Your task to perform on an android device: change the clock display to analog Image 0: 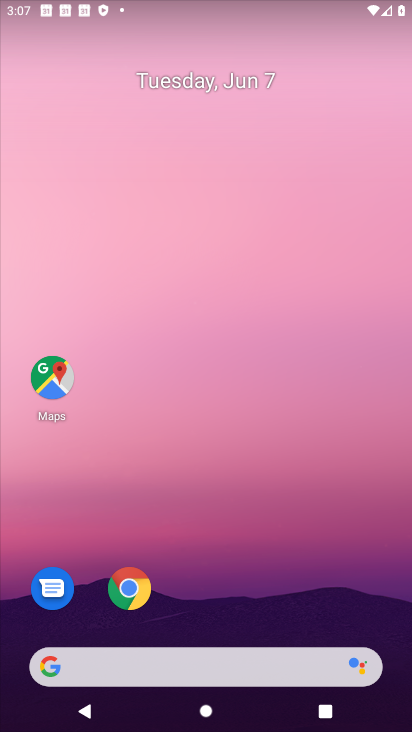
Step 0: drag from (319, 575) to (280, 200)
Your task to perform on an android device: change the clock display to analog Image 1: 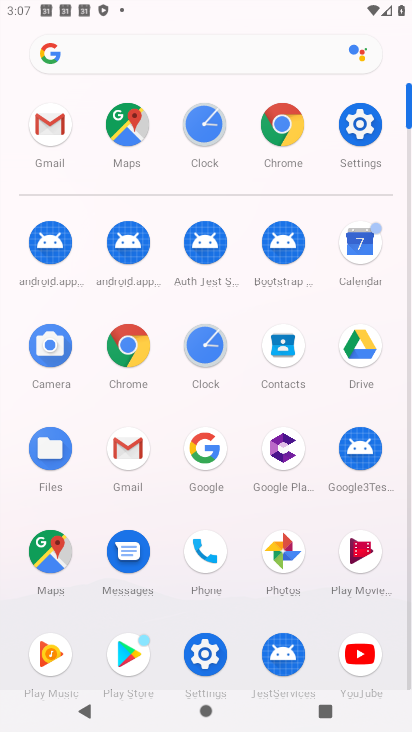
Step 1: click (201, 117)
Your task to perform on an android device: change the clock display to analog Image 2: 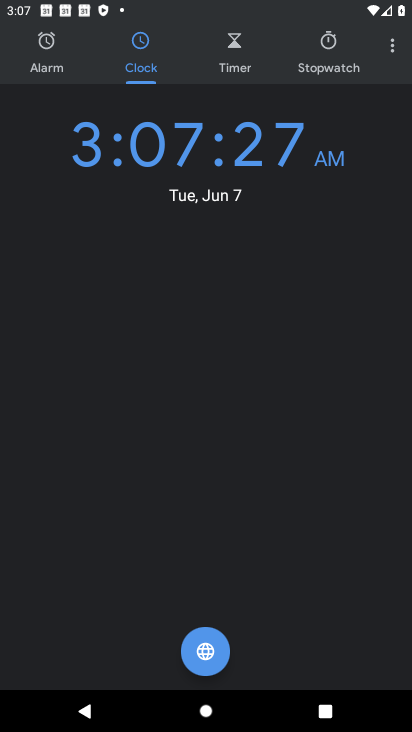
Step 2: click (386, 34)
Your task to perform on an android device: change the clock display to analog Image 3: 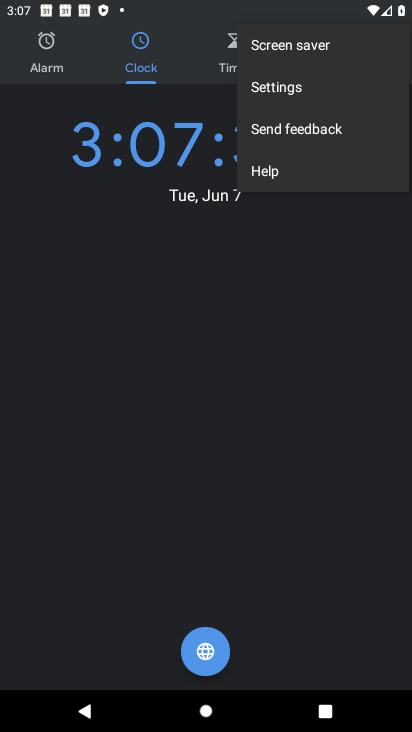
Step 3: click (324, 85)
Your task to perform on an android device: change the clock display to analog Image 4: 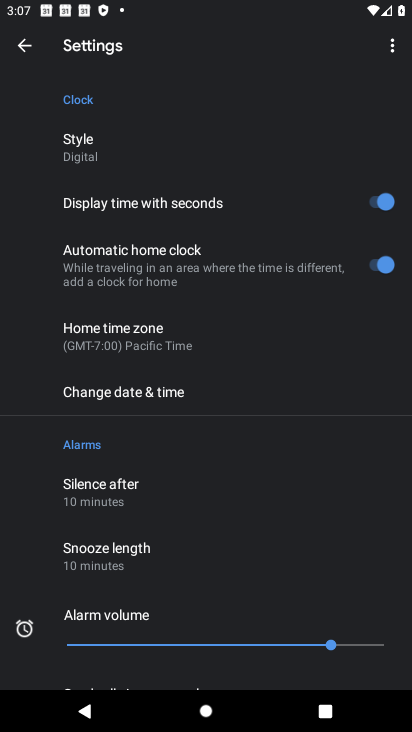
Step 4: click (294, 134)
Your task to perform on an android device: change the clock display to analog Image 5: 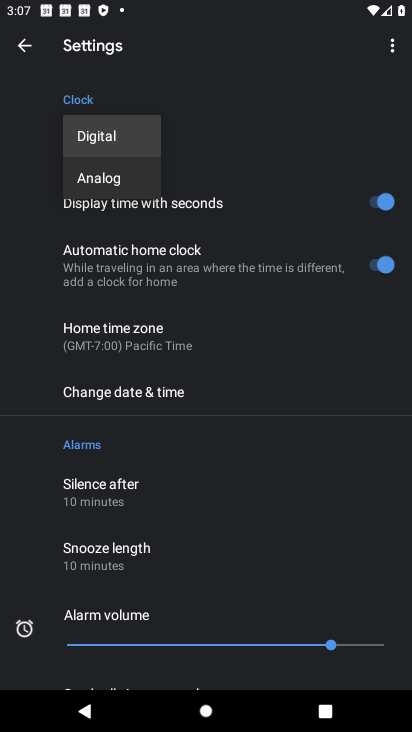
Step 5: click (95, 178)
Your task to perform on an android device: change the clock display to analog Image 6: 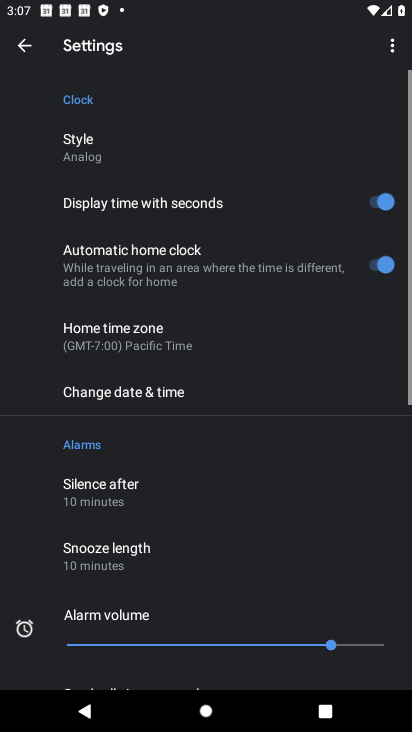
Step 6: task complete